Your task to perform on an android device: check google app version Image 0: 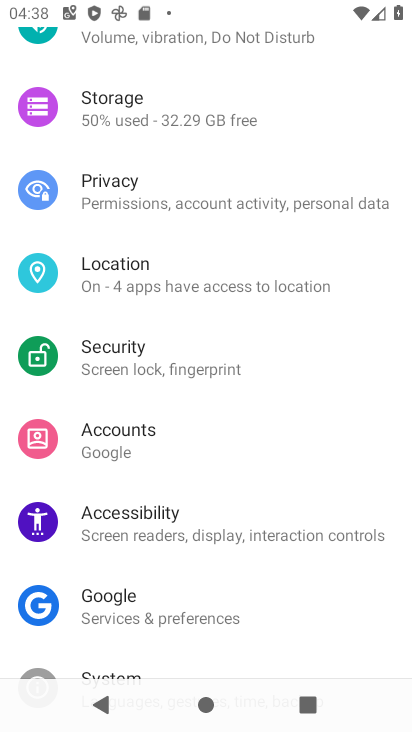
Step 0: task complete